Your task to perform on an android device: change notification settings in the gmail app Image 0: 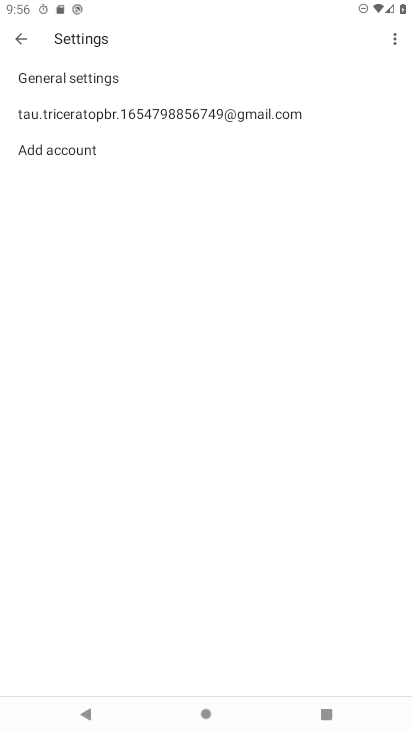
Step 0: click (112, 110)
Your task to perform on an android device: change notification settings in the gmail app Image 1: 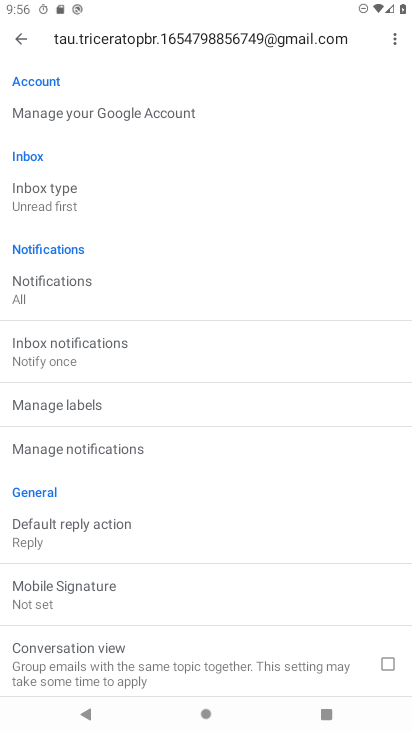
Step 1: click (65, 449)
Your task to perform on an android device: change notification settings in the gmail app Image 2: 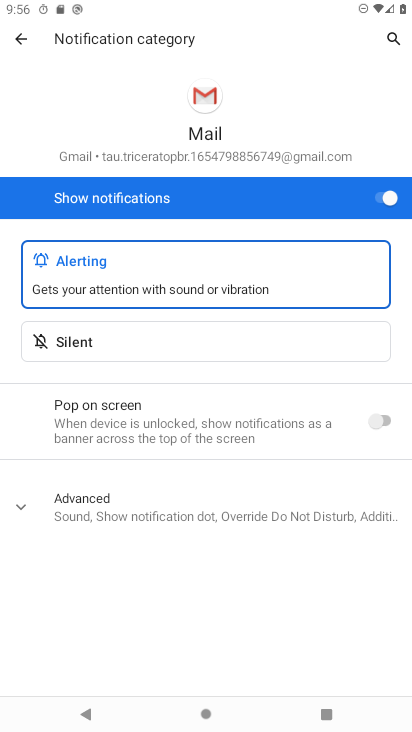
Step 2: drag from (172, 617) to (225, 294)
Your task to perform on an android device: change notification settings in the gmail app Image 3: 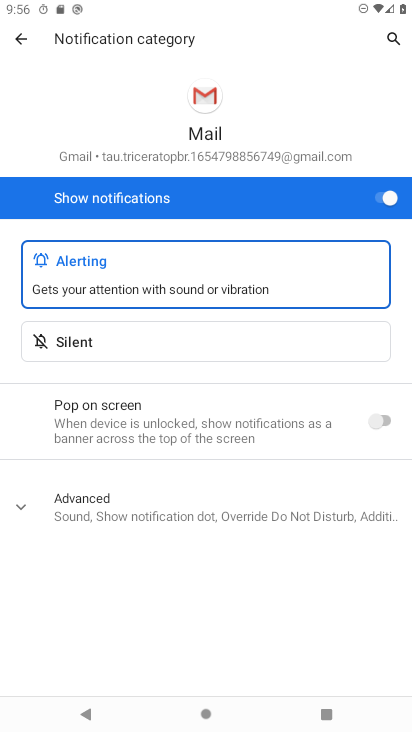
Step 3: click (85, 510)
Your task to perform on an android device: change notification settings in the gmail app Image 4: 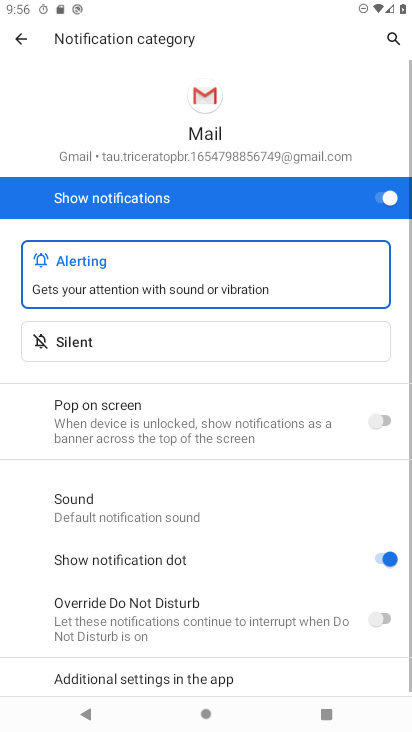
Step 4: drag from (220, 544) to (248, 230)
Your task to perform on an android device: change notification settings in the gmail app Image 5: 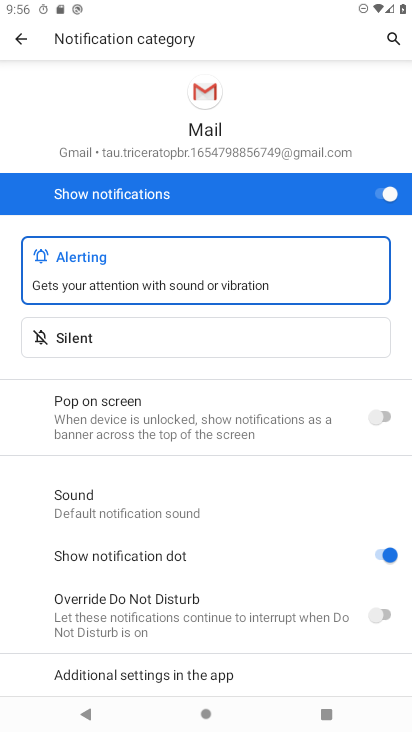
Step 5: drag from (165, 658) to (262, 277)
Your task to perform on an android device: change notification settings in the gmail app Image 6: 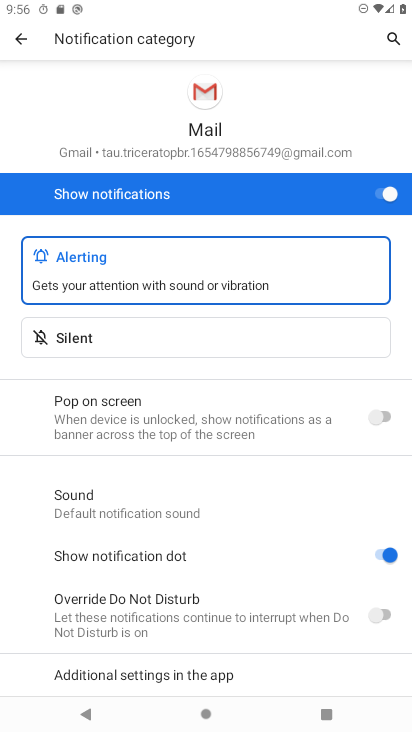
Step 6: drag from (206, 610) to (227, 203)
Your task to perform on an android device: change notification settings in the gmail app Image 7: 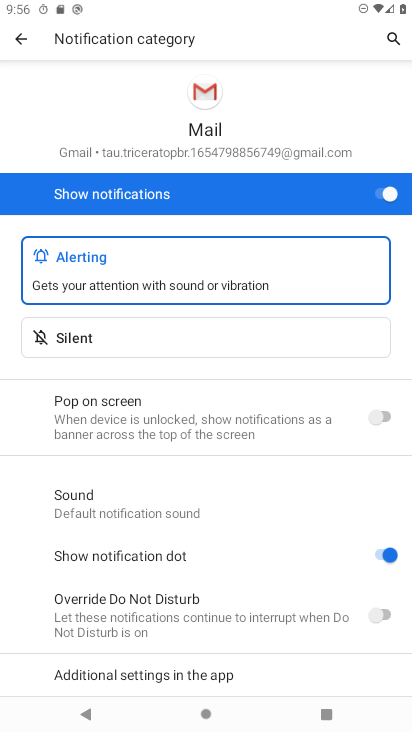
Step 7: click (379, 192)
Your task to perform on an android device: change notification settings in the gmail app Image 8: 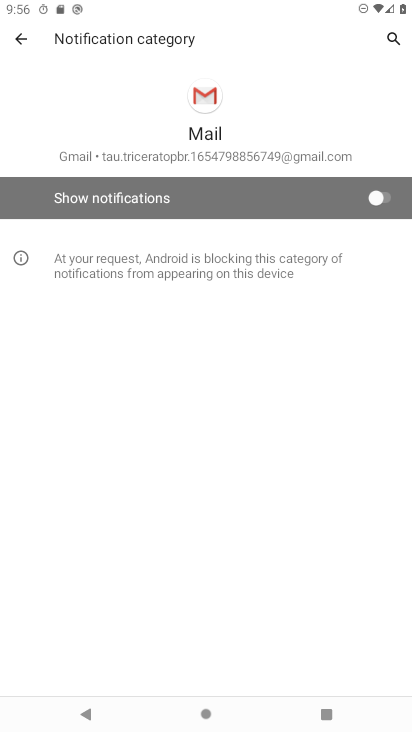
Step 8: task complete